Your task to perform on an android device: check google app version Image 0: 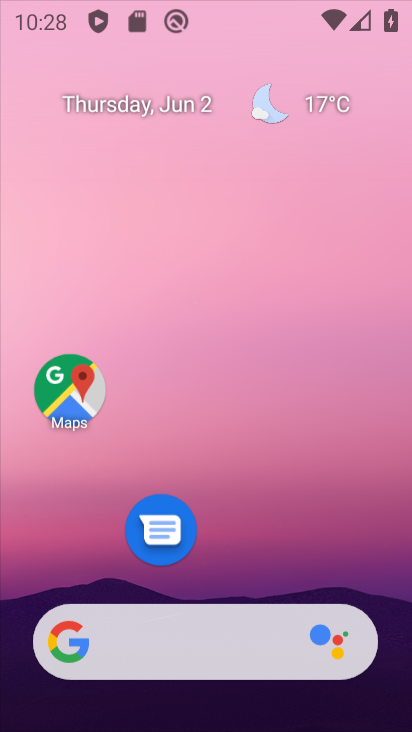
Step 0: press back button
Your task to perform on an android device: check google app version Image 1: 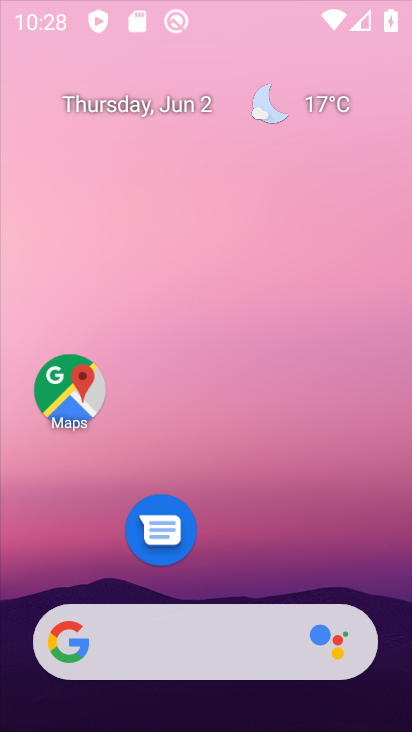
Step 1: drag from (281, 690) to (270, 70)
Your task to perform on an android device: check google app version Image 2: 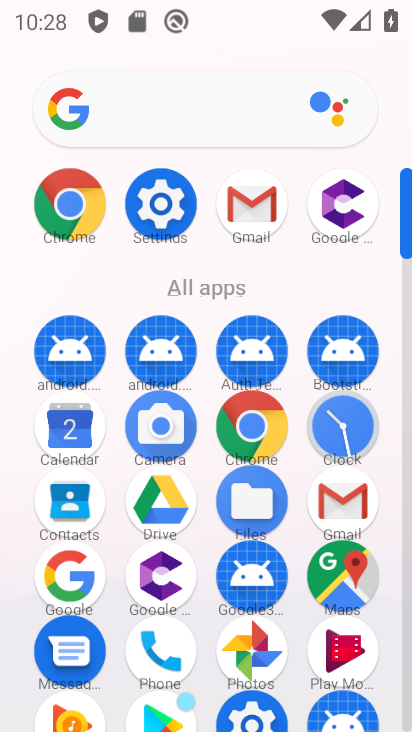
Step 2: drag from (227, 602) to (184, 386)
Your task to perform on an android device: check google app version Image 3: 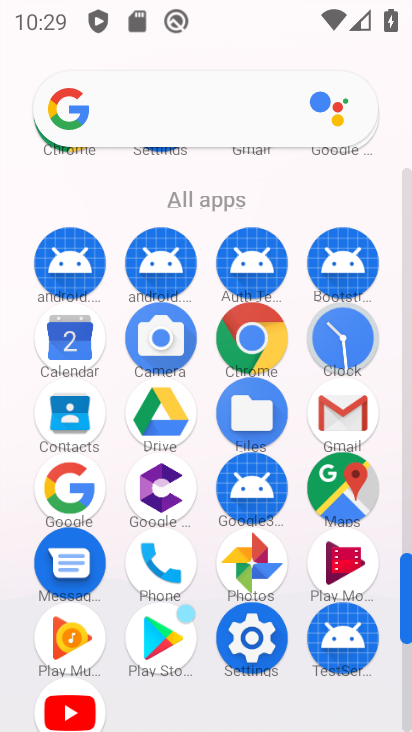
Step 3: click (61, 492)
Your task to perform on an android device: check google app version Image 4: 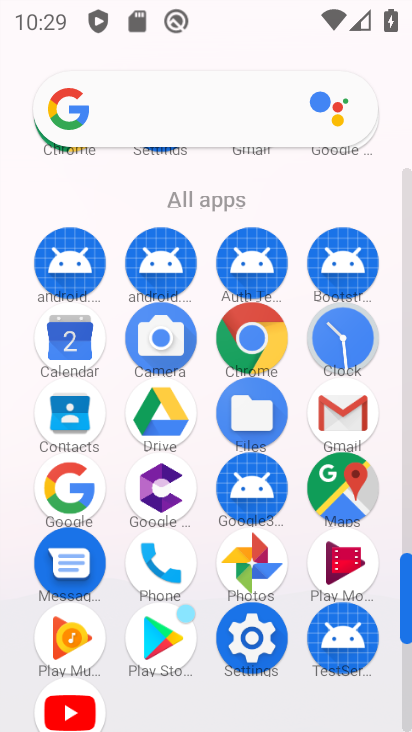
Step 4: click (58, 487)
Your task to perform on an android device: check google app version Image 5: 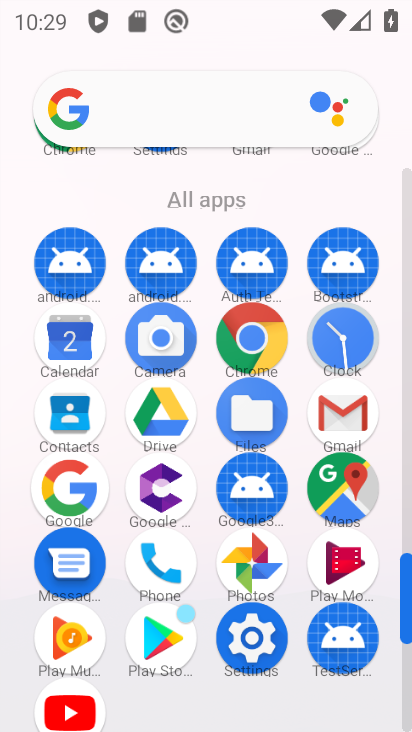
Step 5: click (58, 486)
Your task to perform on an android device: check google app version Image 6: 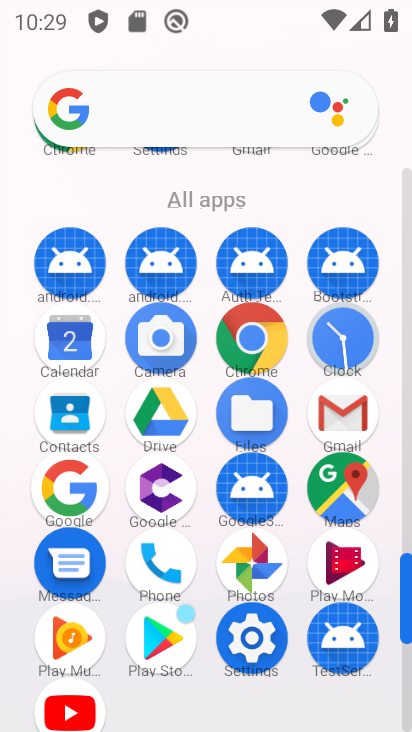
Step 6: click (59, 483)
Your task to perform on an android device: check google app version Image 7: 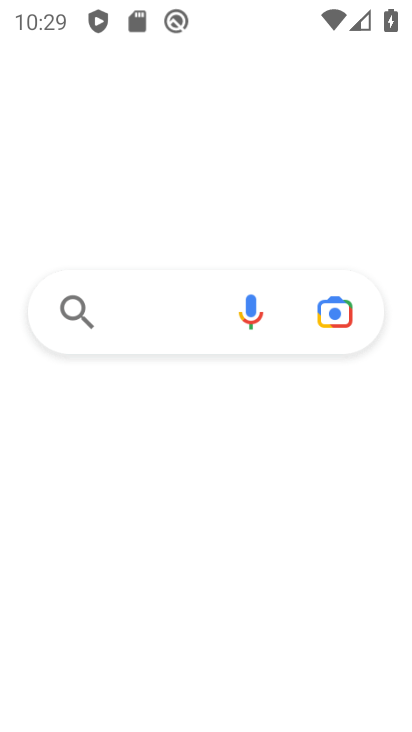
Step 7: click (70, 493)
Your task to perform on an android device: check google app version Image 8: 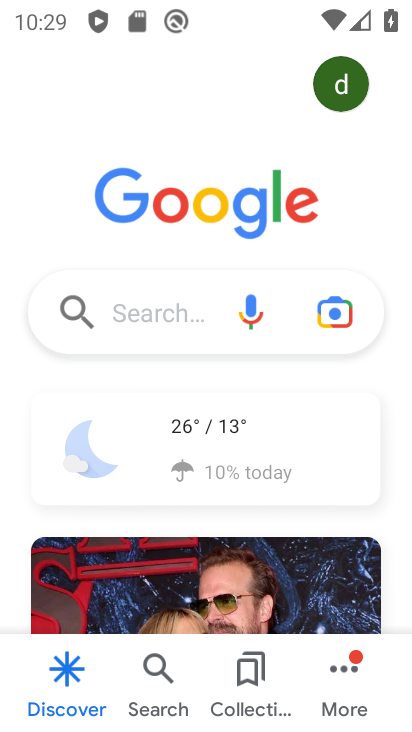
Step 8: click (350, 659)
Your task to perform on an android device: check google app version Image 9: 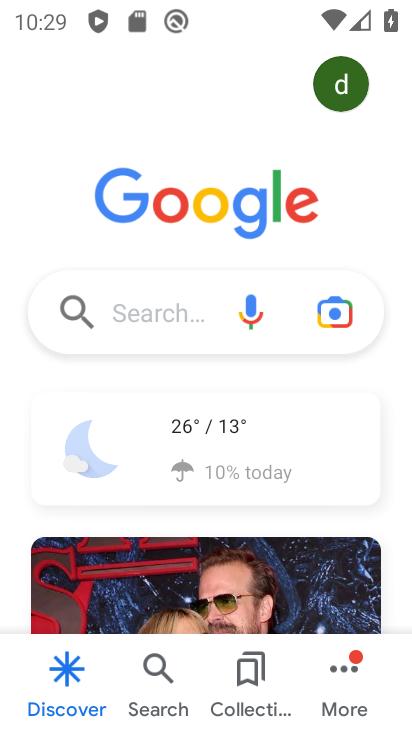
Step 9: click (344, 663)
Your task to perform on an android device: check google app version Image 10: 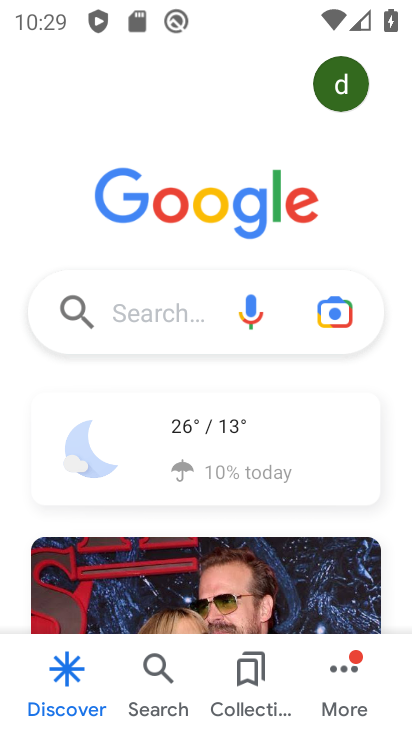
Step 10: click (344, 663)
Your task to perform on an android device: check google app version Image 11: 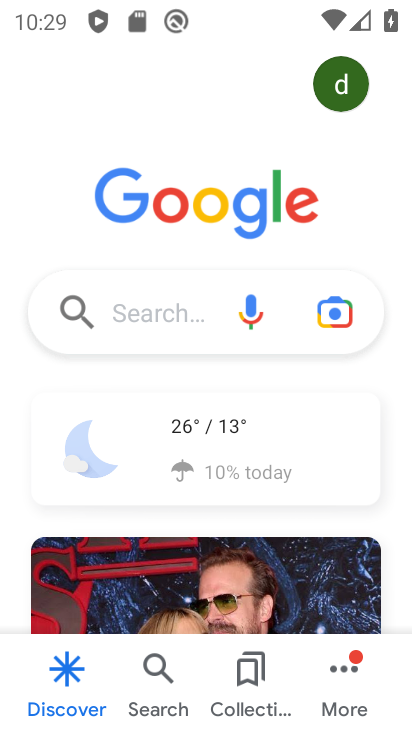
Step 11: click (343, 662)
Your task to perform on an android device: check google app version Image 12: 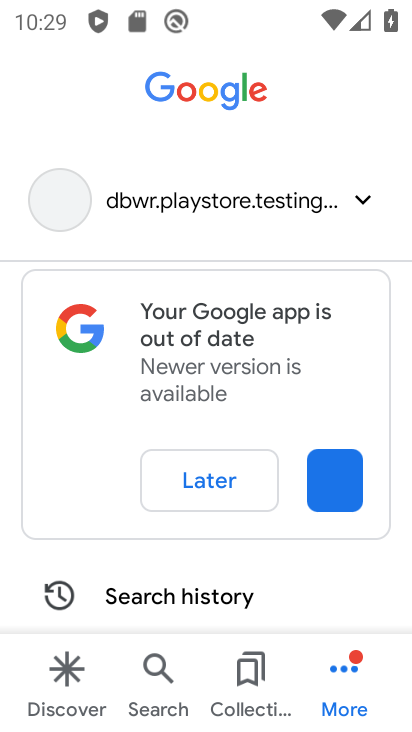
Step 12: click (344, 662)
Your task to perform on an android device: check google app version Image 13: 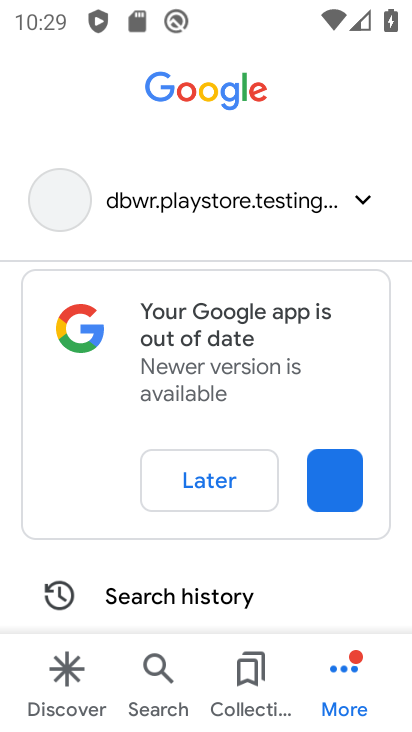
Step 13: click (345, 662)
Your task to perform on an android device: check google app version Image 14: 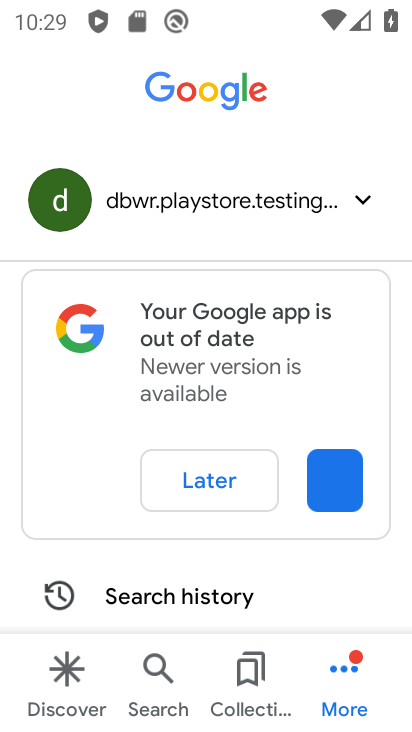
Step 14: task complete